Your task to perform on an android device: Go to Wikipedia Image 0: 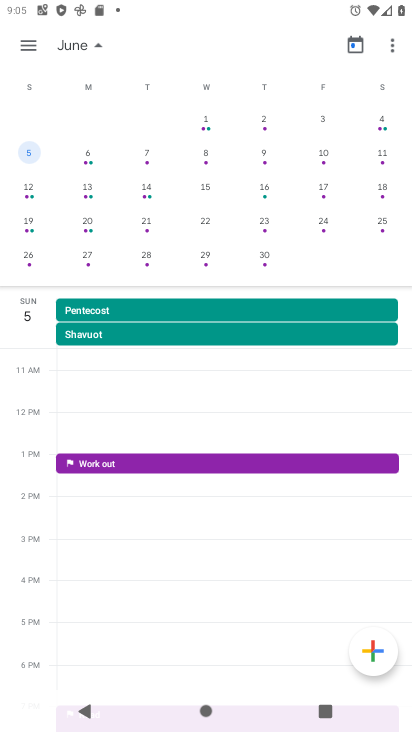
Step 0: press home button
Your task to perform on an android device: Go to Wikipedia Image 1: 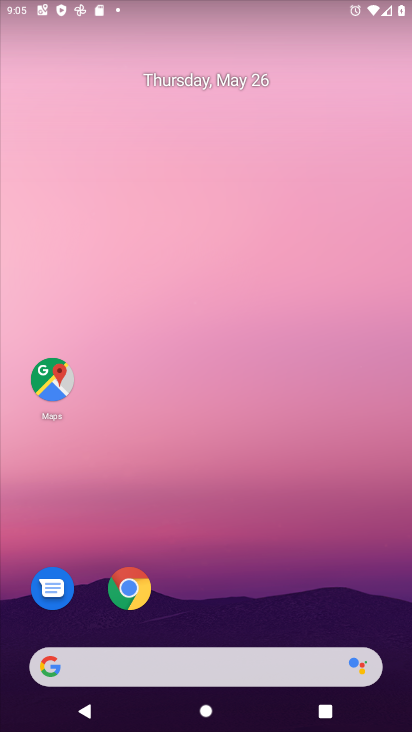
Step 1: drag from (400, 616) to (328, 59)
Your task to perform on an android device: Go to Wikipedia Image 2: 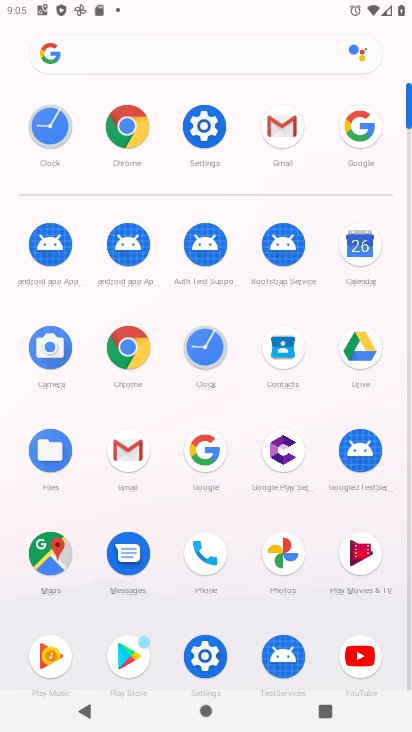
Step 2: click (208, 459)
Your task to perform on an android device: Go to Wikipedia Image 3: 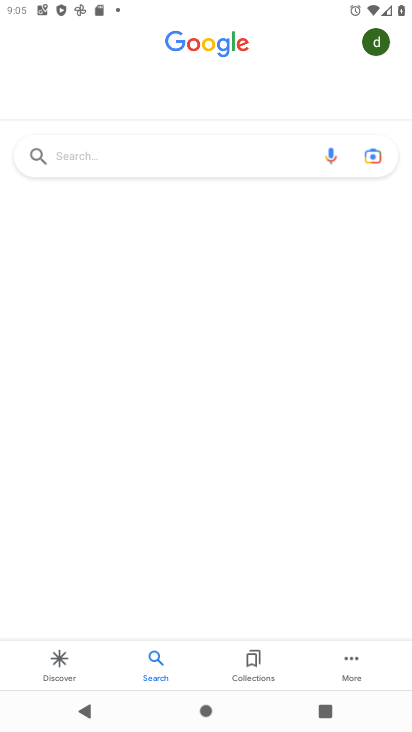
Step 3: click (140, 170)
Your task to perform on an android device: Go to Wikipedia Image 4: 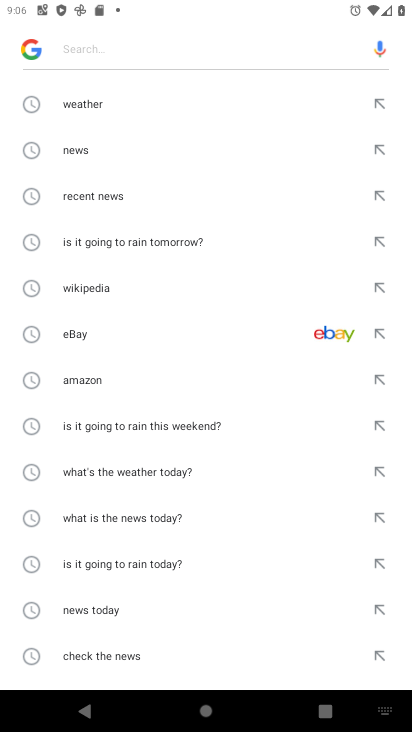
Step 4: drag from (123, 645) to (157, 118)
Your task to perform on an android device: Go to Wikipedia Image 5: 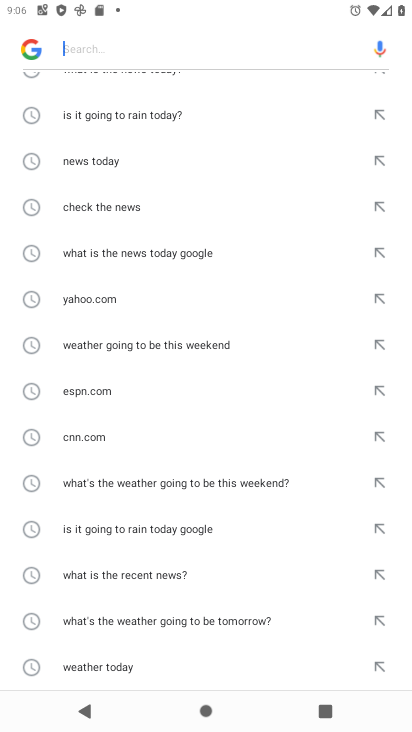
Step 5: drag from (154, 106) to (55, 692)
Your task to perform on an android device: Go to Wikipedia Image 6: 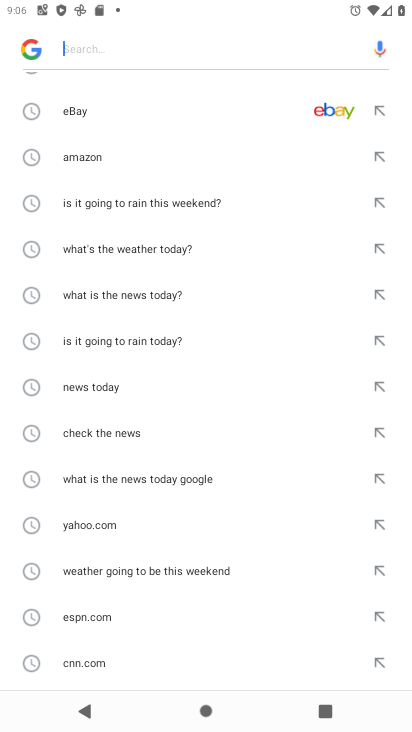
Step 6: drag from (147, 239) to (153, 611)
Your task to perform on an android device: Go to Wikipedia Image 7: 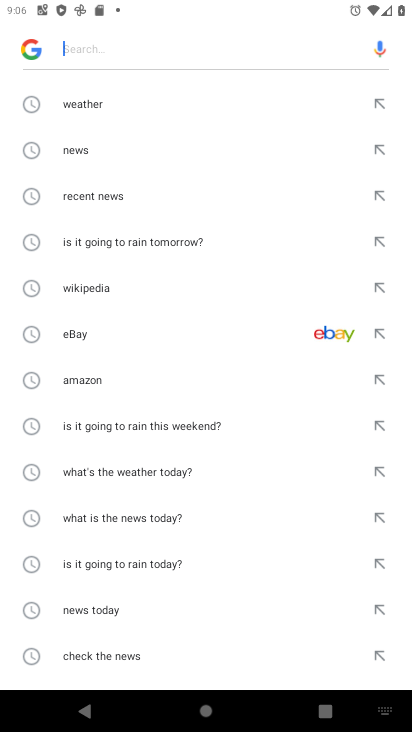
Step 7: click (103, 288)
Your task to perform on an android device: Go to Wikipedia Image 8: 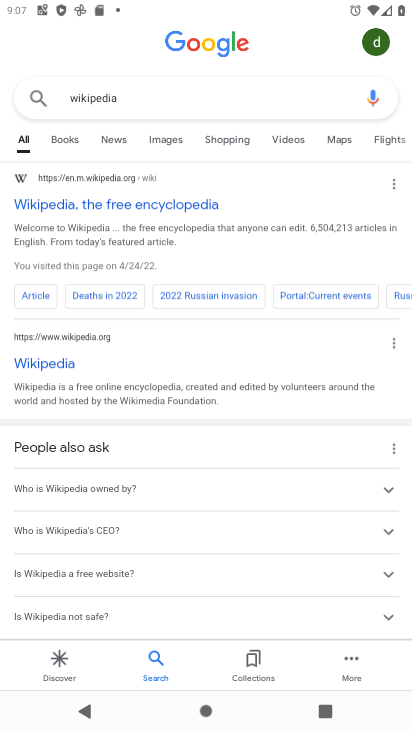
Step 8: task complete